Your task to perform on an android device: set an alarm Image 0: 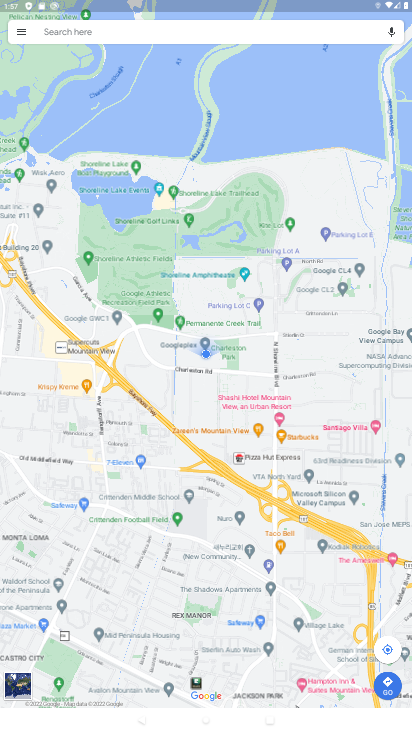
Step 0: press home button
Your task to perform on an android device: set an alarm Image 1: 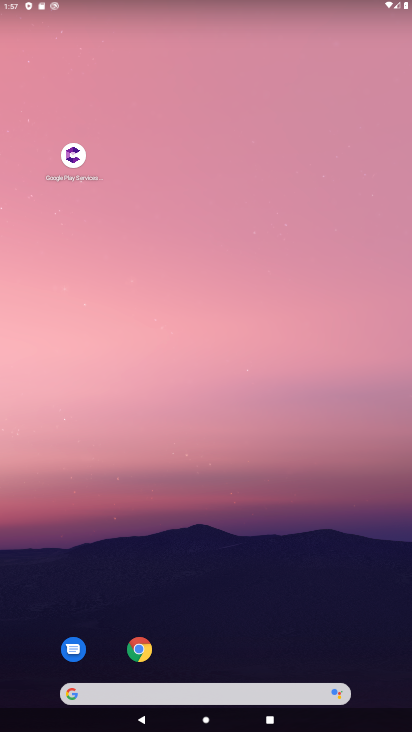
Step 1: drag from (210, 669) to (383, 72)
Your task to perform on an android device: set an alarm Image 2: 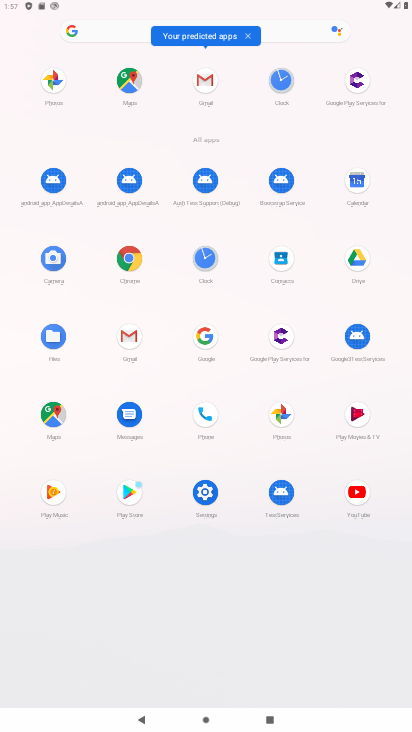
Step 2: click (282, 78)
Your task to perform on an android device: set an alarm Image 3: 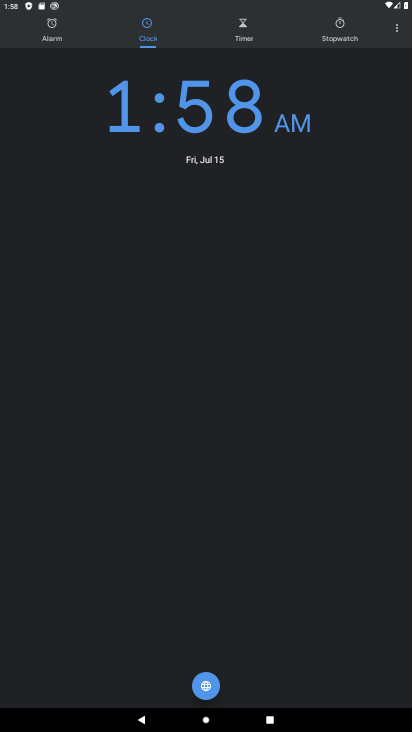
Step 3: click (39, 34)
Your task to perform on an android device: set an alarm Image 4: 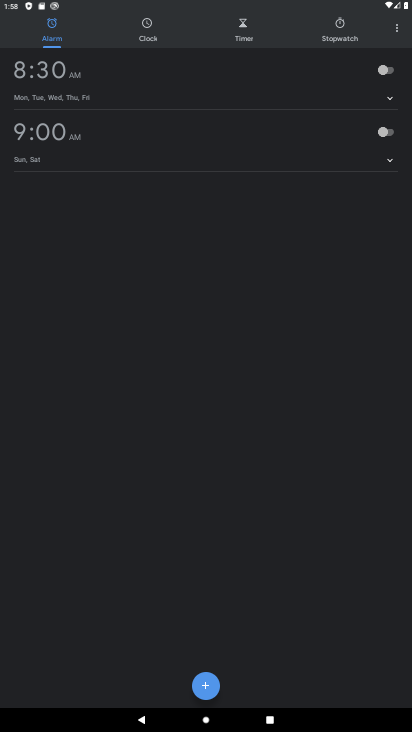
Step 4: click (384, 66)
Your task to perform on an android device: set an alarm Image 5: 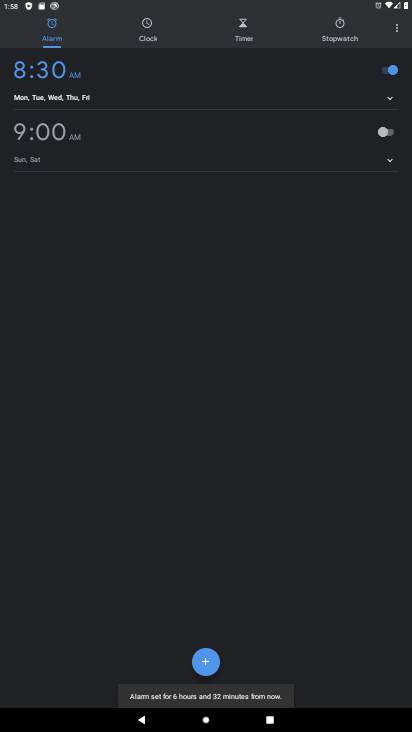
Step 5: task complete